Your task to perform on an android device: Open the Play Movies app and select the watchlist tab. Image 0: 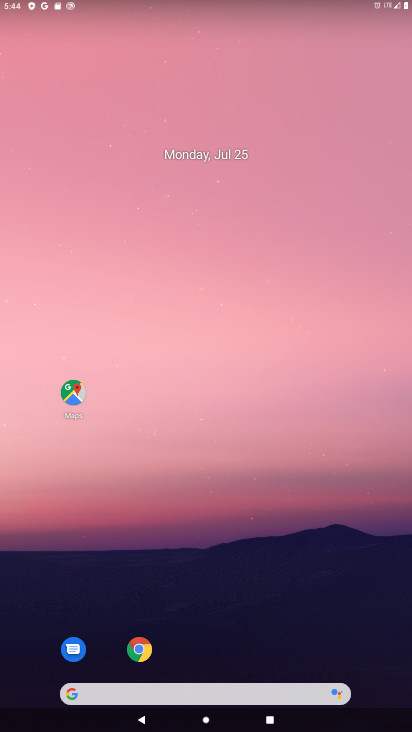
Step 0: click (296, 26)
Your task to perform on an android device: Open the Play Movies app and select the watchlist tab. Image 1: 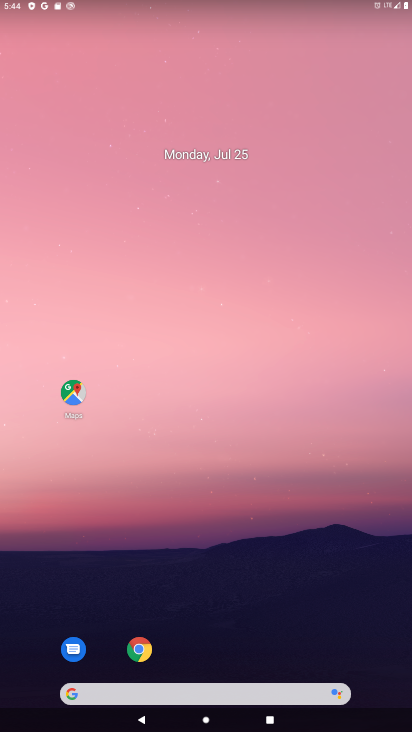
Step 1: drag from (235, 627) to (382, 48)
Your task to perform on an android device: Open the Play Movies app and select the watchlist tab. Image 2: 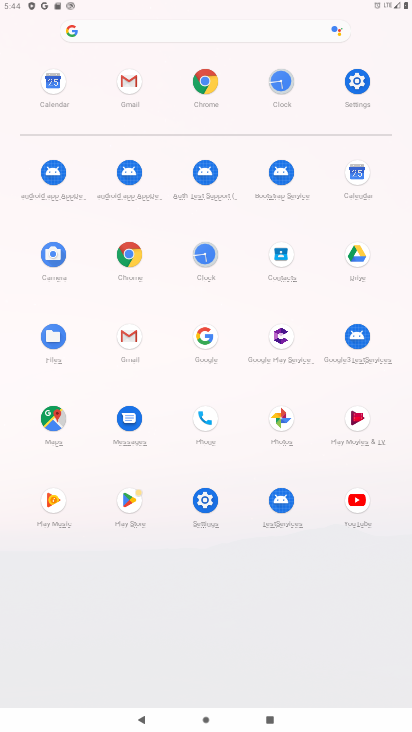
Step 2: click (361, 416)
Your task to perform on an android device: Open the Play Movies app and select the watchlist tab. Image 3: 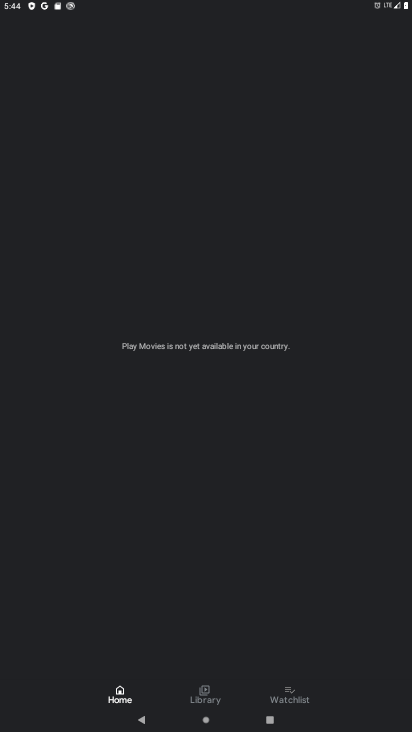
Step 3: click (291, 701)
Your task to perform on an android device: Open the Play Movies app and select the watchlist tab. Image 4: 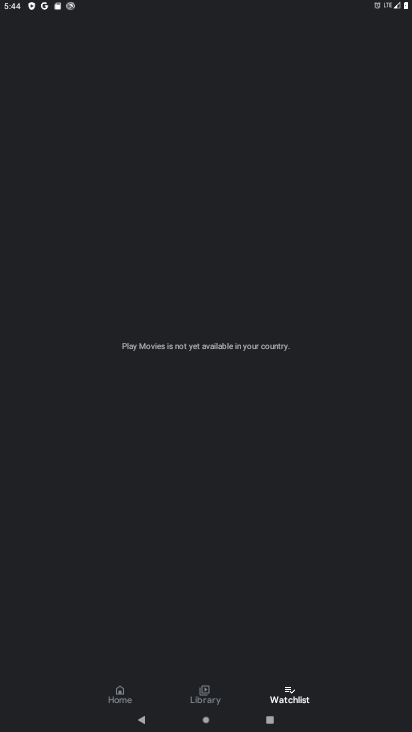
Step 4: task complete